Your task to perform on an android device: Open internet settings Image 0: 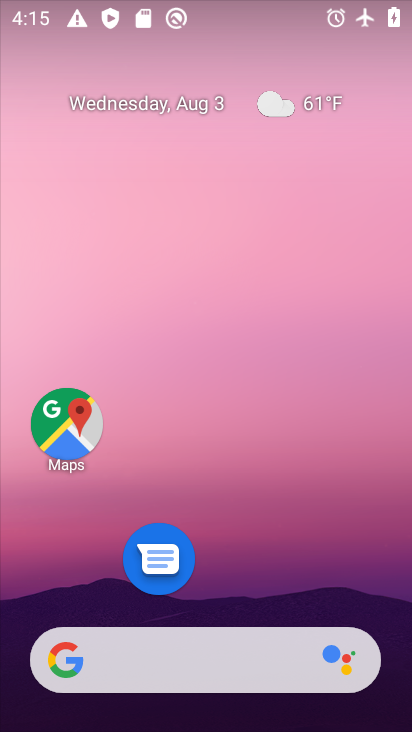
Step 0: drag from (266, 606) to (270, 205)
Your task to perform on an android device: Open internet settings Image 1: 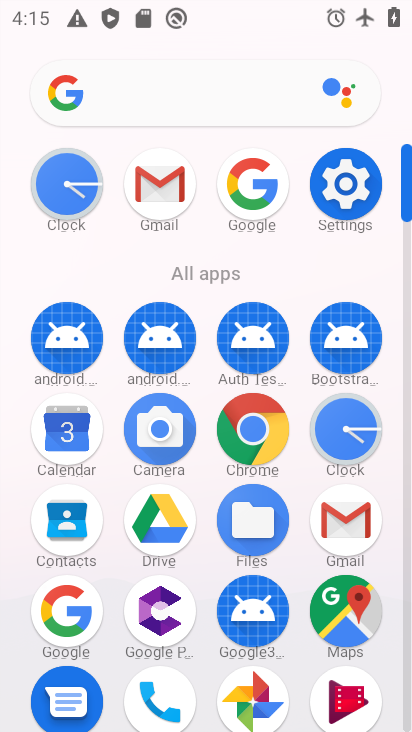
Step 1: click (343, 176)
Your task to perform on an android device: Open internet settings Image 2: 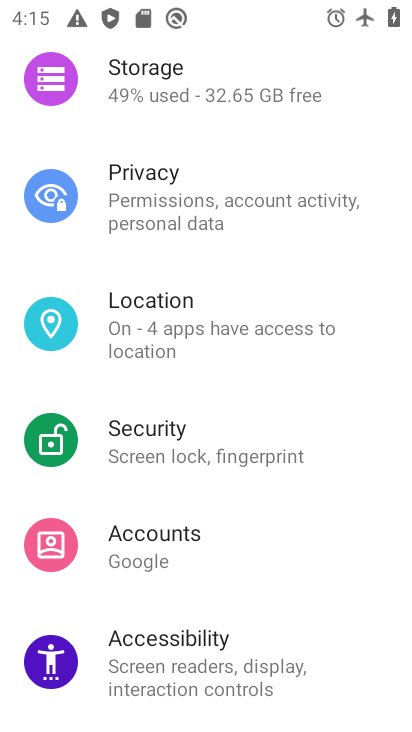
Step 2: drag from (221, 81) to (224, 614)
Your task to perform on an android device: Open internet settings Image 3: 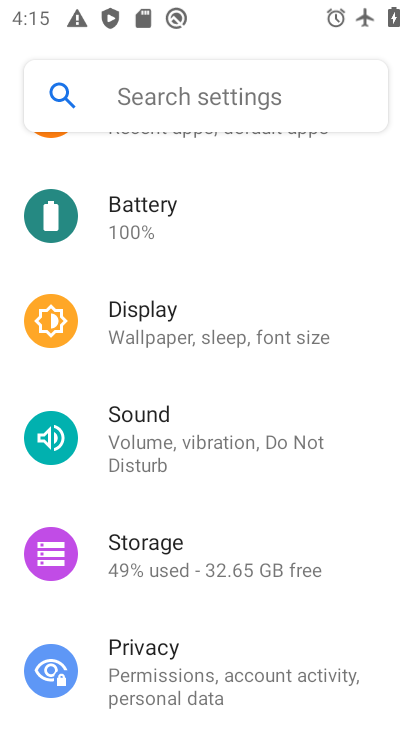
Step 3: drag from (185, 173) to (208, 623)
Your task to perform on an android device: Open internet settings Image 4: 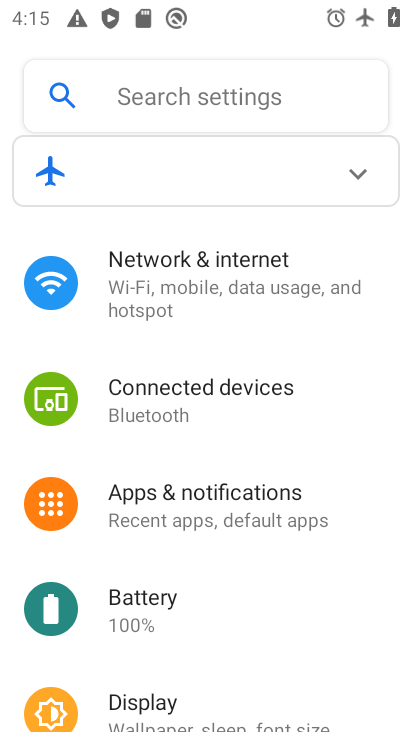
Step 4: click (144, 280)
Your task to perform on an android device: Open internet settings Image 5: 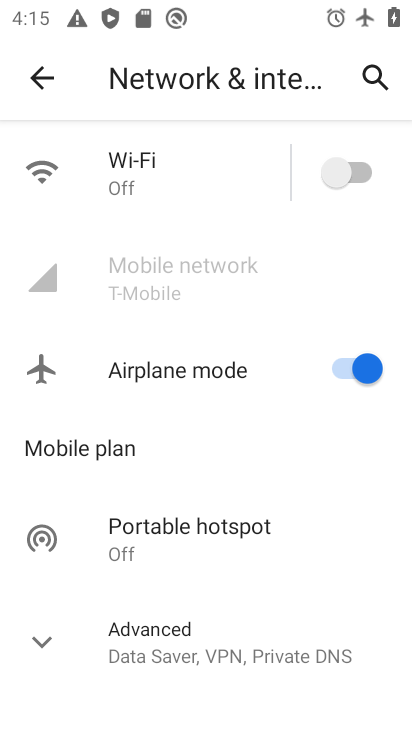
Step 5: click (167, 647)
Your task to perform on an android device: Open internet settings Image 6: 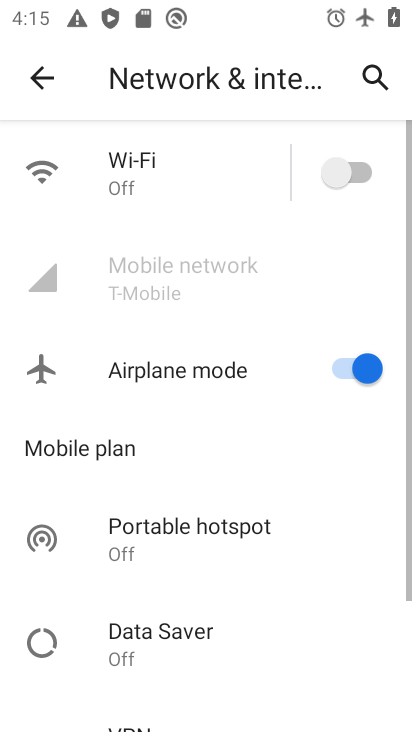
Step 6: drag from (185, 686) to (190, 340)
Your task to perform on an android device: Open internet settings Image 7: 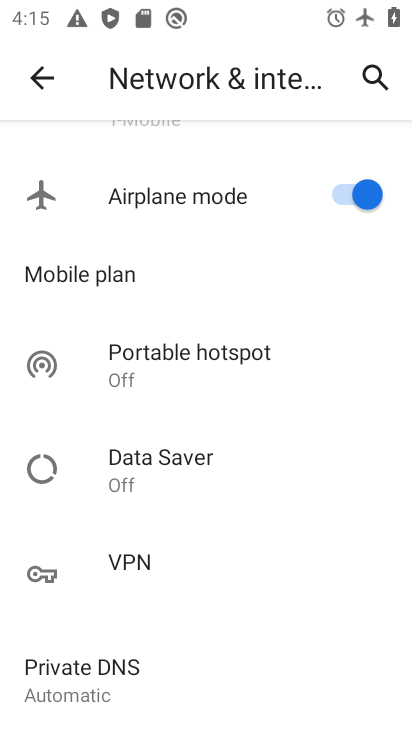
Step 7: drag from (192, 211) to (205, 611)
Your task to perform on an android device: Open internet settings Image 8: 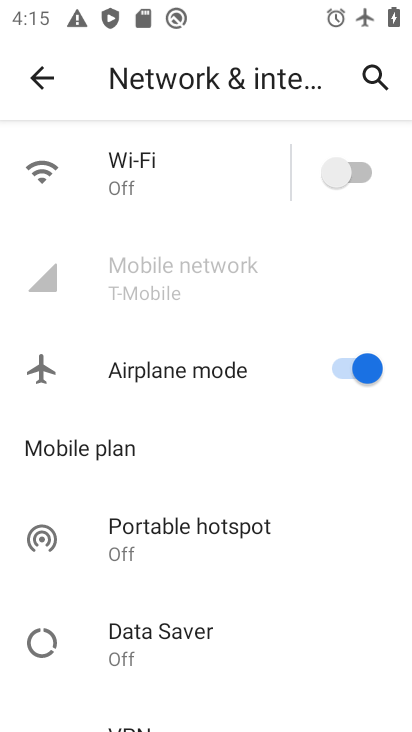
Step 8: click (342, 373)
Your task to perform on an android device: Open internet settings Image 9: 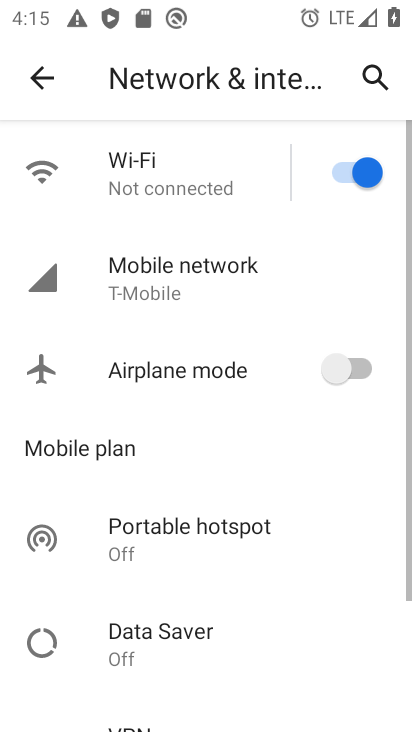
Step 9: click (209, 276)
Your task to perform on an android device: Open internet settings Image 10: 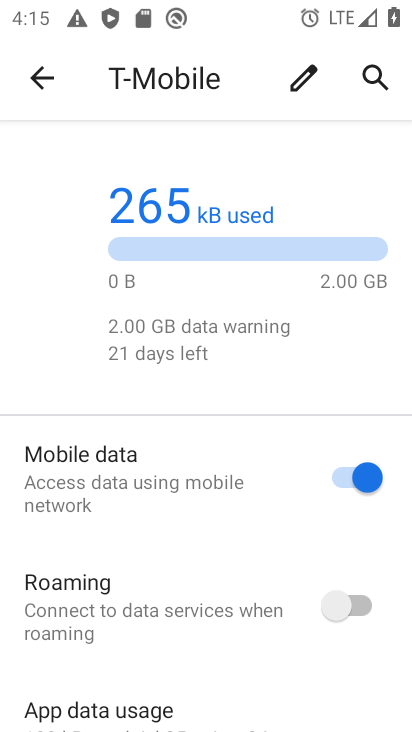
Step 10: task complete